Your task to perform on an android device: turn on showing notifications on the lock screen Image 0: 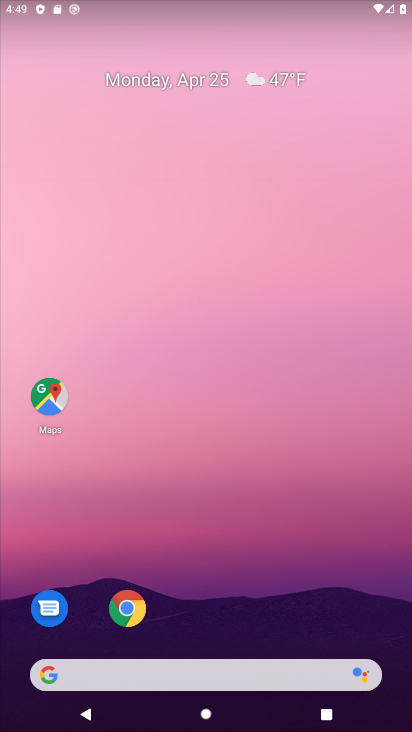
Step 0: drag from (302, 622) to (298, 71)
Your task to perform on an android device: turn on showing notifications on the lock screen Image 1: 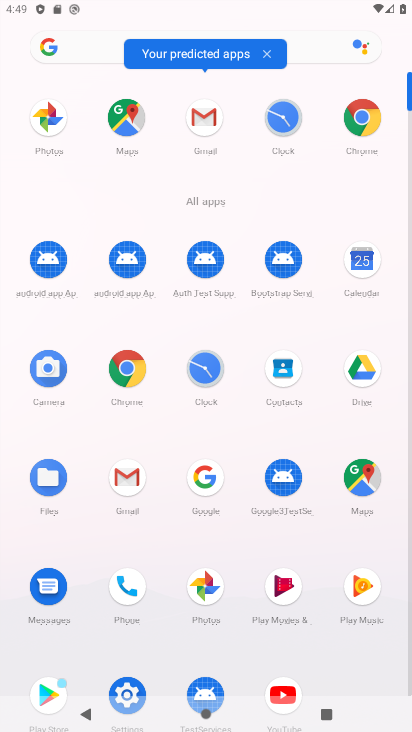
Step 1: click (120, 679)
Your task to perform on an android device: turn on showing notifications on the lock screen Image 2: 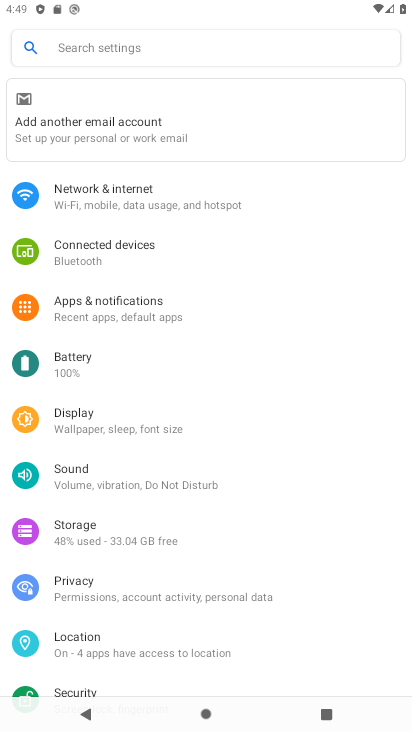
Step 2: drag from (180, 653) to (161, 130)
Your task to perform on an android device: turn on showing notifications on the lock screen Image 3: 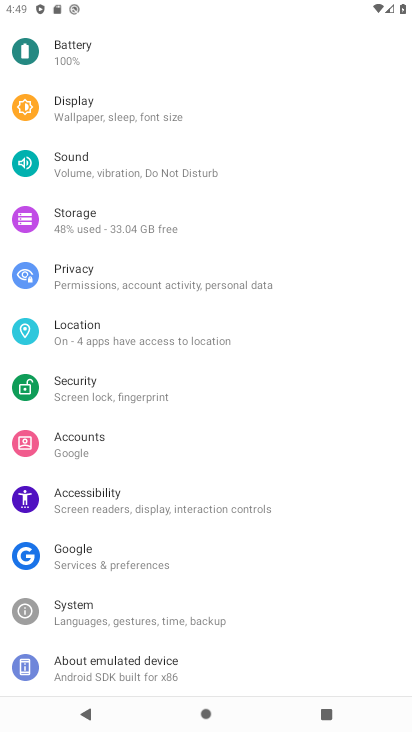
Step 3: drag from (146, 563) to (125, 205)
Your task to perform on an android device: turn on showing notifications on the lock screen Image 4: 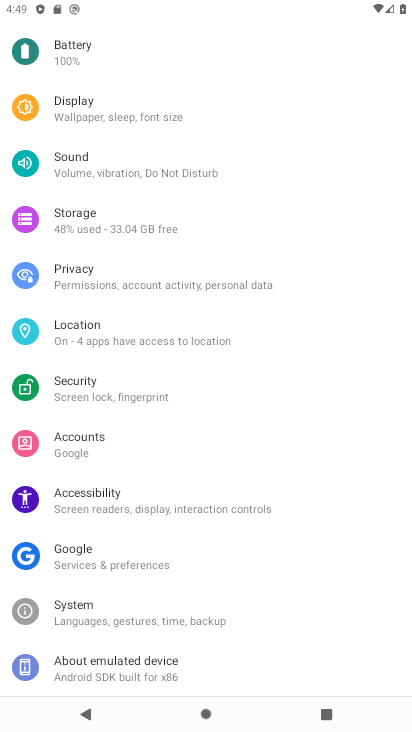
Step 4: drag from (228, 195) to (208, 655)
Your task to perform on an android device: turn on showing notifications on the lock screen Image 5: 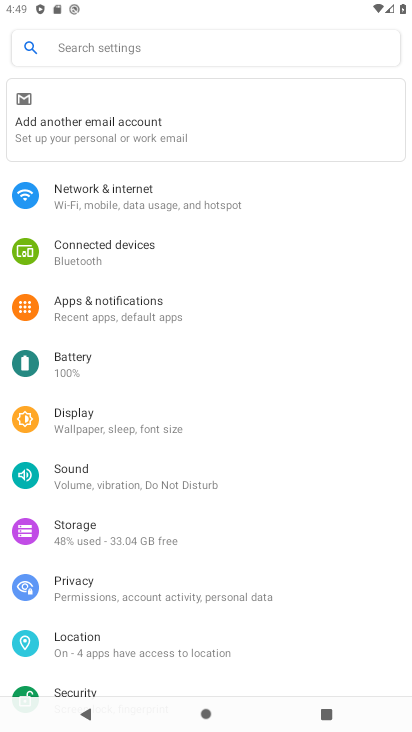
Step 5: click (140, 311)
Your task to perform on an android device: turn on showing notifications on the lock screen Image 6: 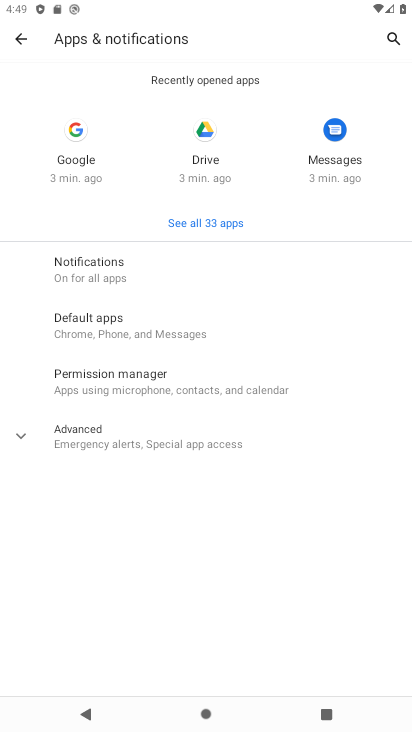
Step 6: click (150, 277)
Your task to perform on an android device: turn on showing notifications on the lock screen Image 7: 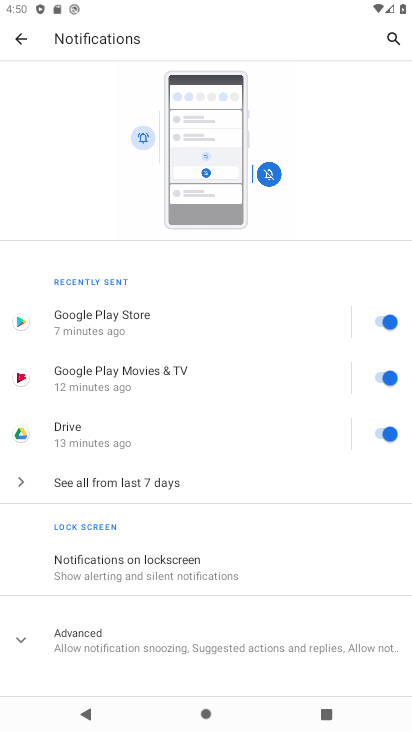
Step 7: click (145, 637)
Your task to perform on an android device: turn on showing notifications on the lock screen Image 8: 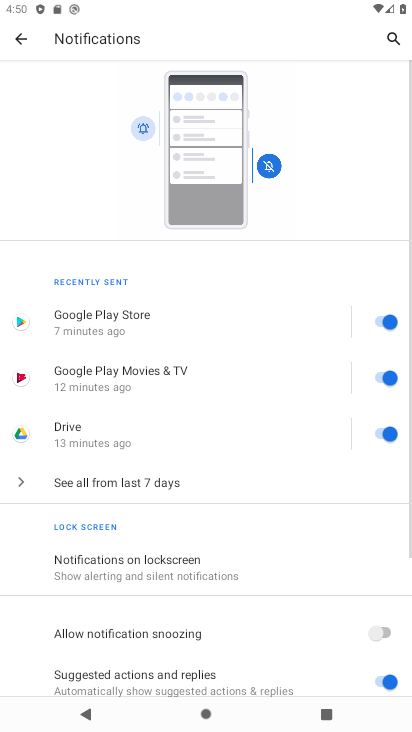
Step 8: drag from (203, 560) to (173, 190)
Your task to perform on an android device: turn on showing notifications on the lock screen Image 9: 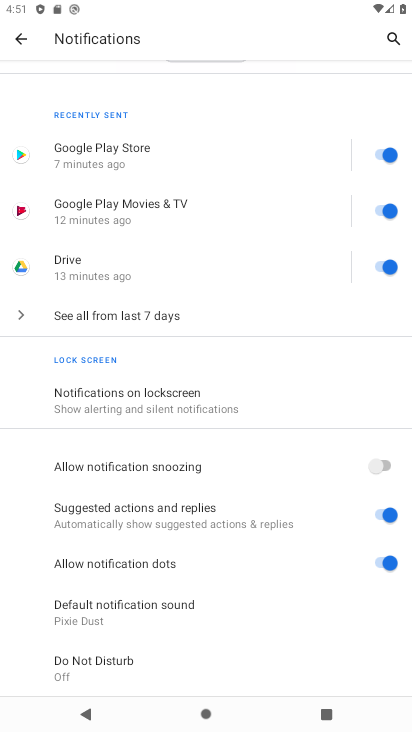
Step 9: click (187, 389)
Your task to perform on an android device: turn on showing notifications on the lock screen Image 10: 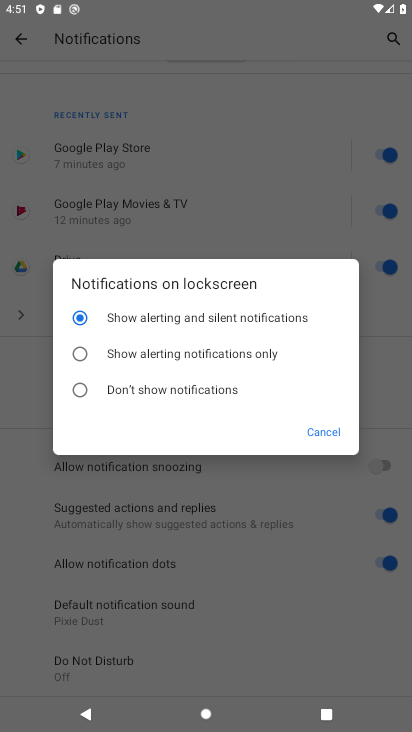
Step 10: task complete